Your task to perform on an android device: Open ESPN.com Image 0: 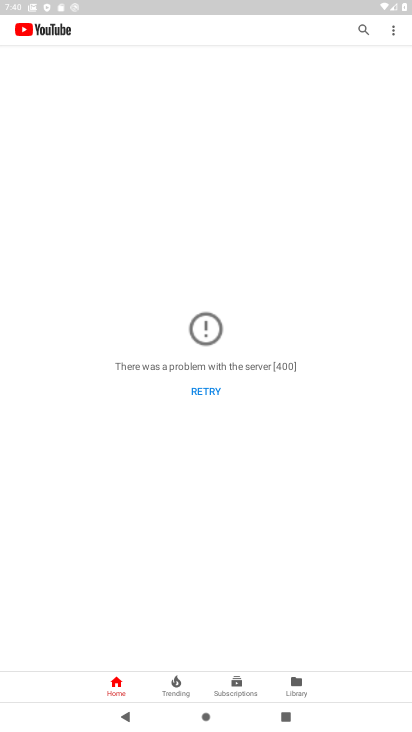
Step 0: press home button
Your task to perform on an android device: Open ESPN.com Image 1: 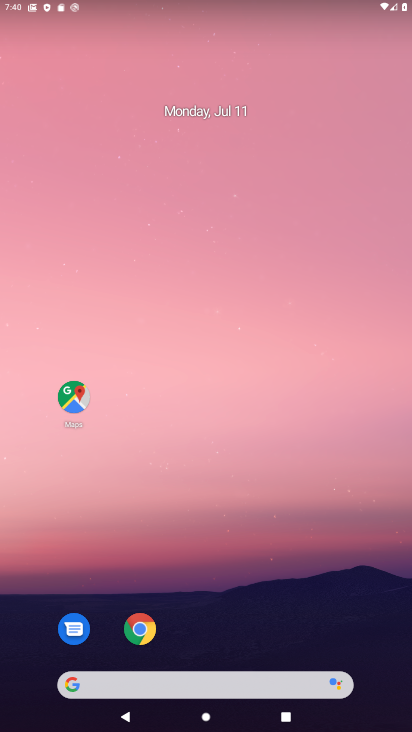
Step 1: click (297, 123)
Your task to perform on an android device: Open ESPN.com Image 2: 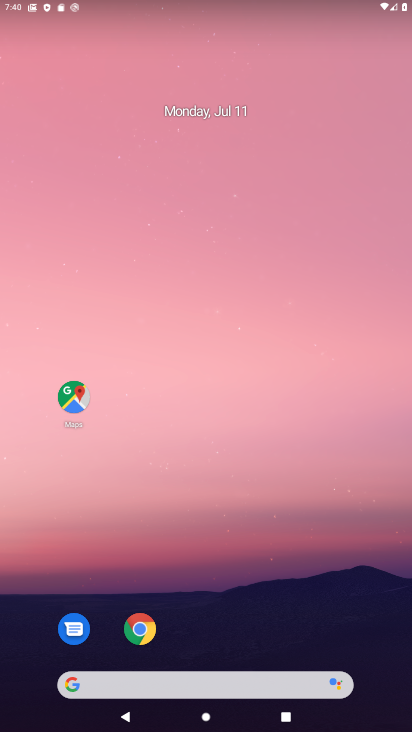
Step 2: click (140, 633)
Your task to perform on an android device: Open ESPN.com Image 3: 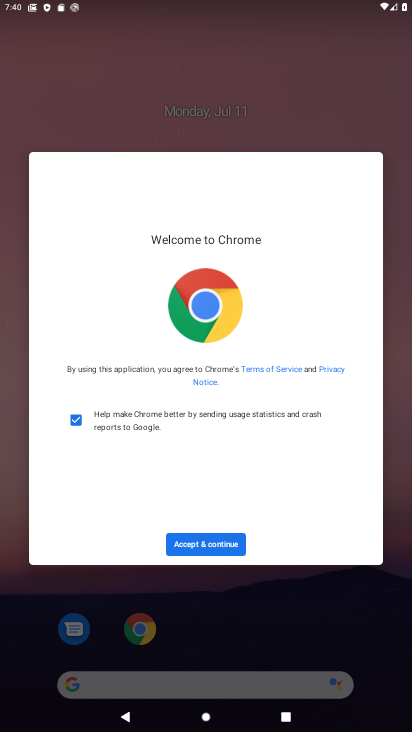
Step 3: click (179, 541)
Your task to perform on an android device: Open ESPN.com Image 4: 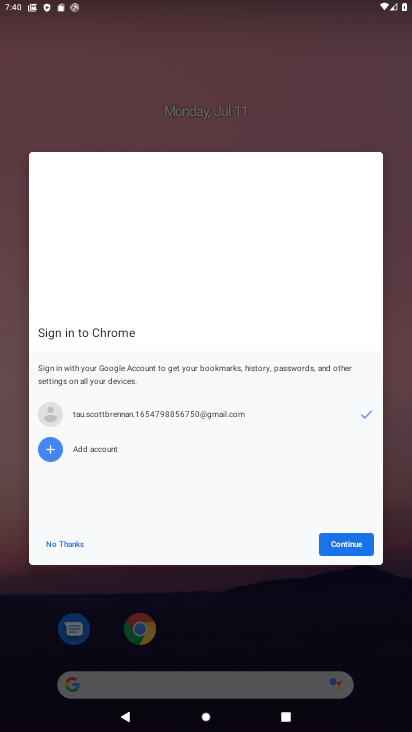
Step 4: click (340, 539)
Your task to perform on an android device: Open ESPN.com Image 5: 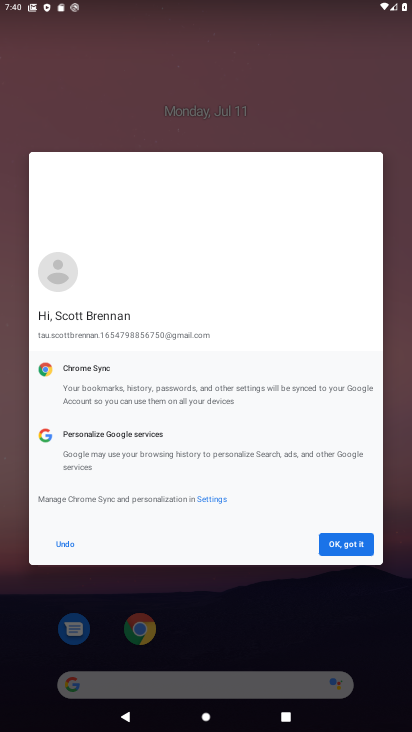
Step 5: click (338, 541)
Your task to perform on an android device: Open ESPN.com Image 6: 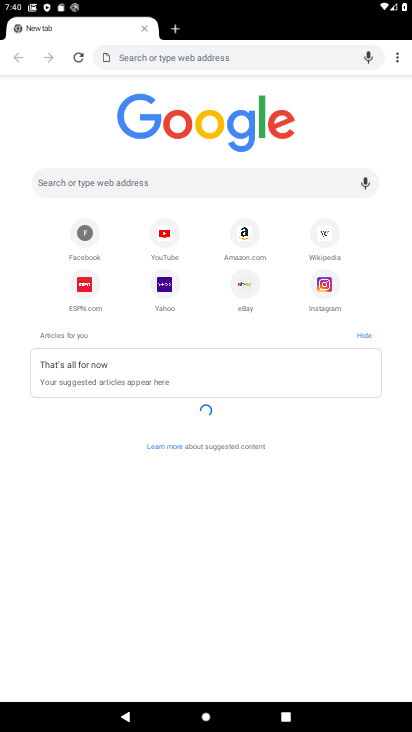
Step 6: click (85, 295)
Your task to perform on an android device: Open ESPN.com Image 7: 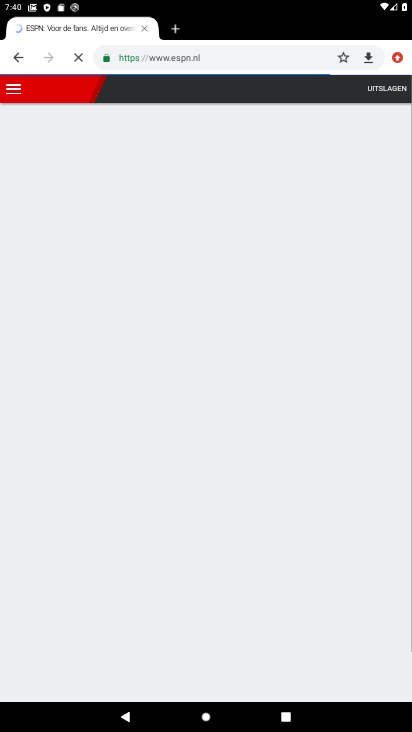
Step 7: task complete